Your task to perform on an android device: Go to Yahoo.com Image 0: 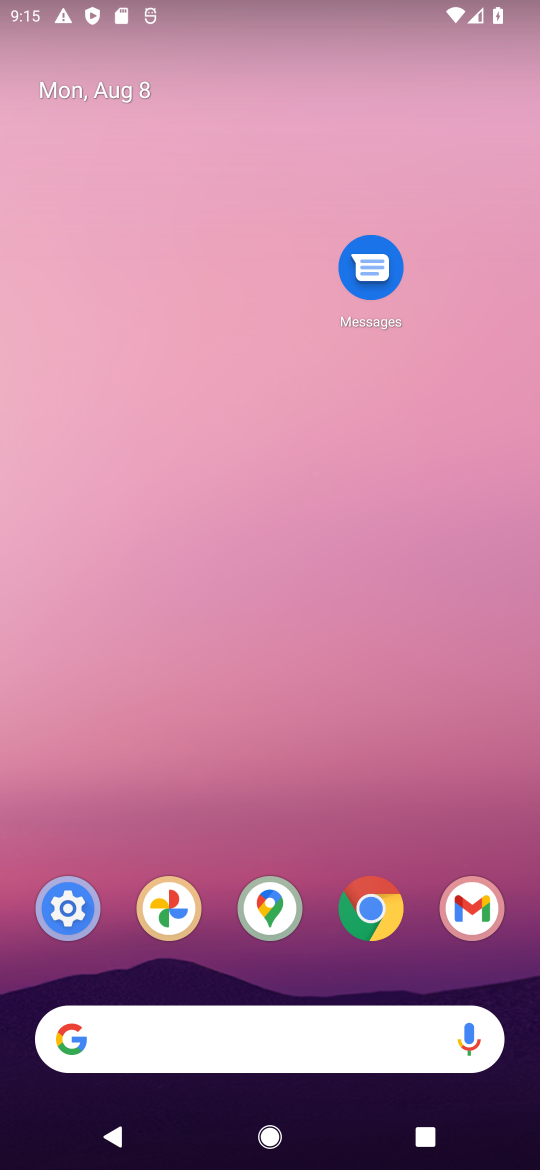
Step 0: click (367, 913)
Your task to perform on an android device: Go to Yahoo.com Image 1: 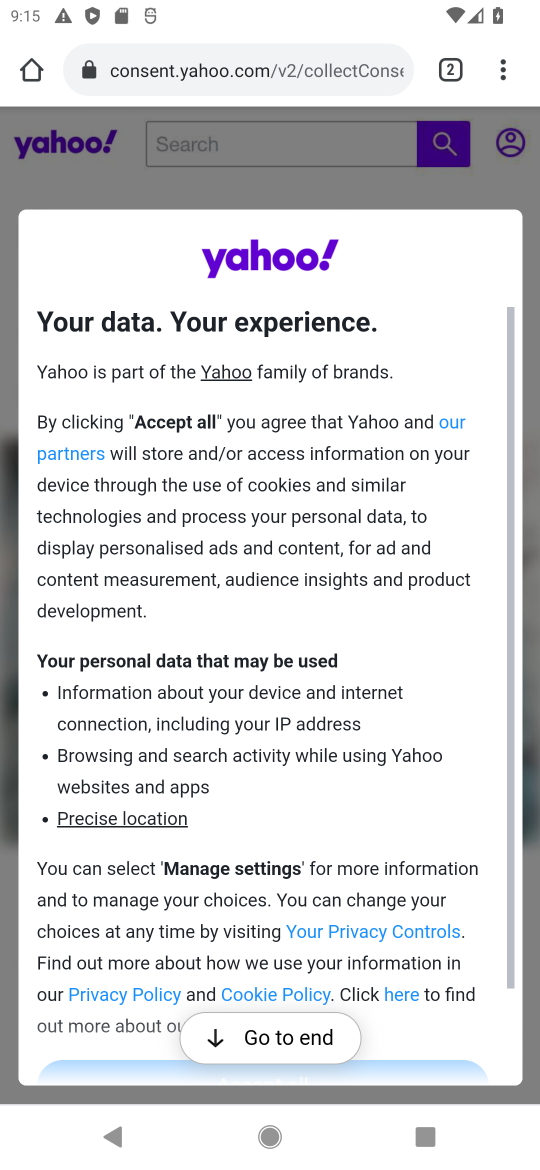
Step 1: task complete